Your task to perform on an android device: Search for lenovo thinkpad on costco.com, select the first entry, and add it to the cart. Image 0: 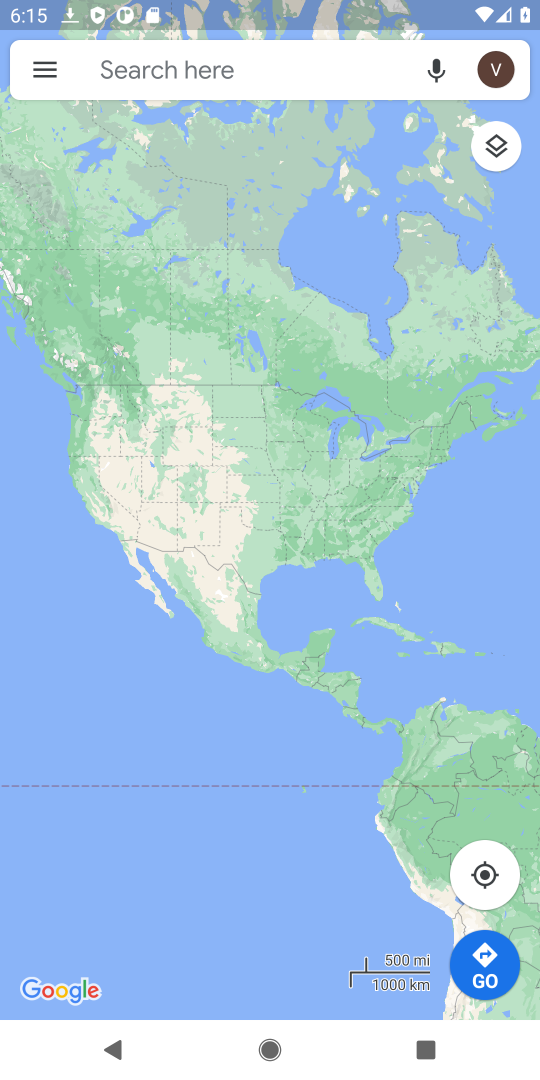
Step 0: press home button
Your task to perform on an android device: Search for lenovo thinkpad on costco.com, select the first entry, and add it to the cart. Image 1: 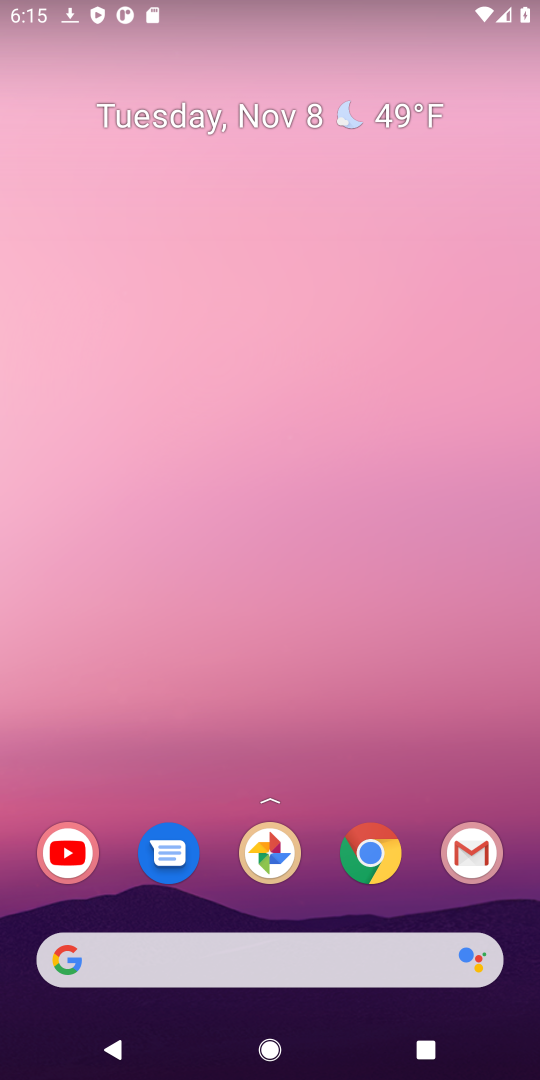
Step 1: click (370, 855)
Your task to perform on an android device: Search for lenovo thinkpad on costco.com, select the first entry, and add it to the cart. Image 2: 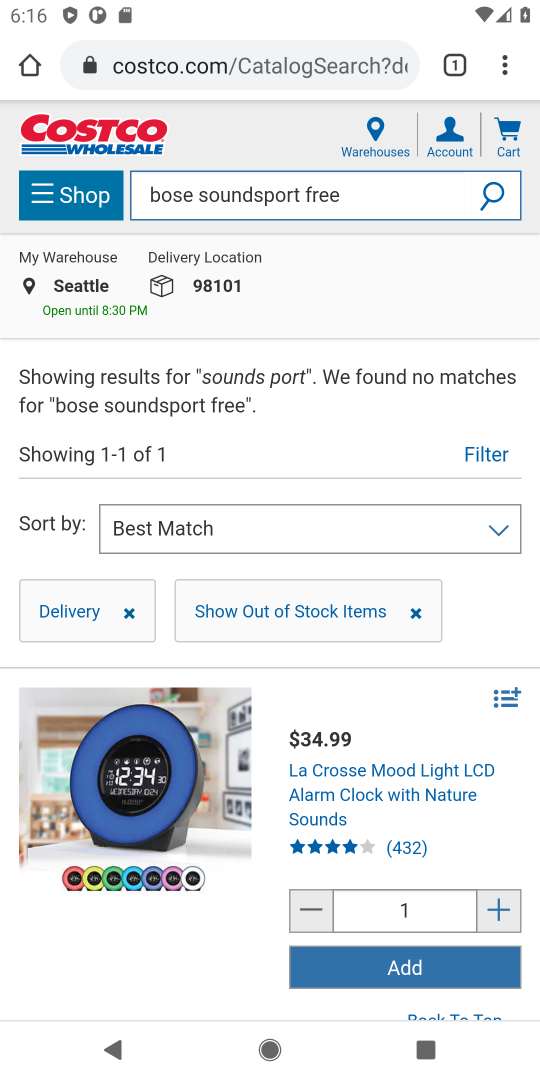
Step 2: press home button
Your task to perform on an android device: Search for lenovo thinkpad on costco.com, select the first entry, and add it to the cart. Image 3: 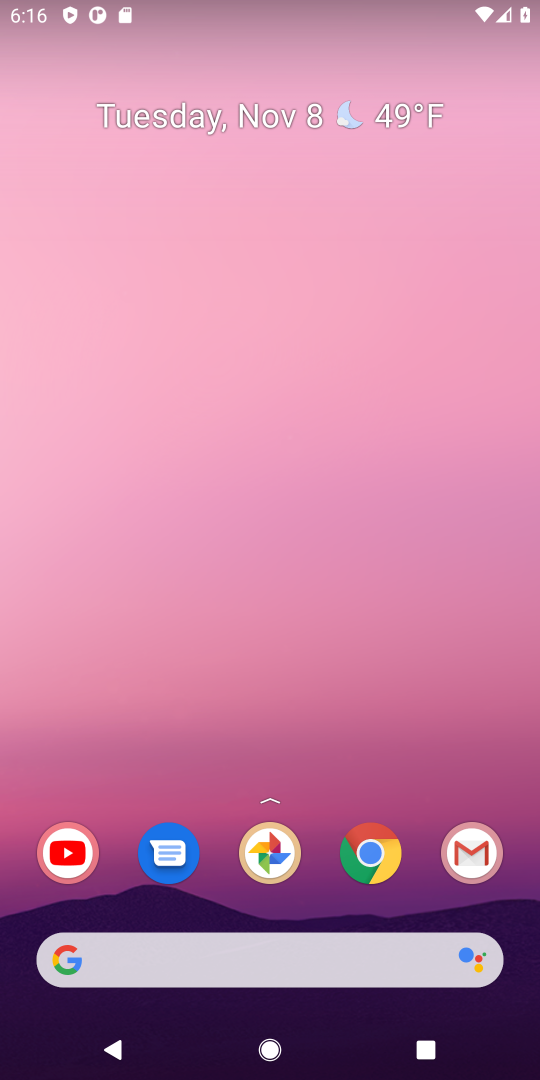
Step 3: click (370, 854)
Your task to perform on an android device: Search for lenovo thinkpad on costco.com, select the first entry, and add it to the cart. Image 4: 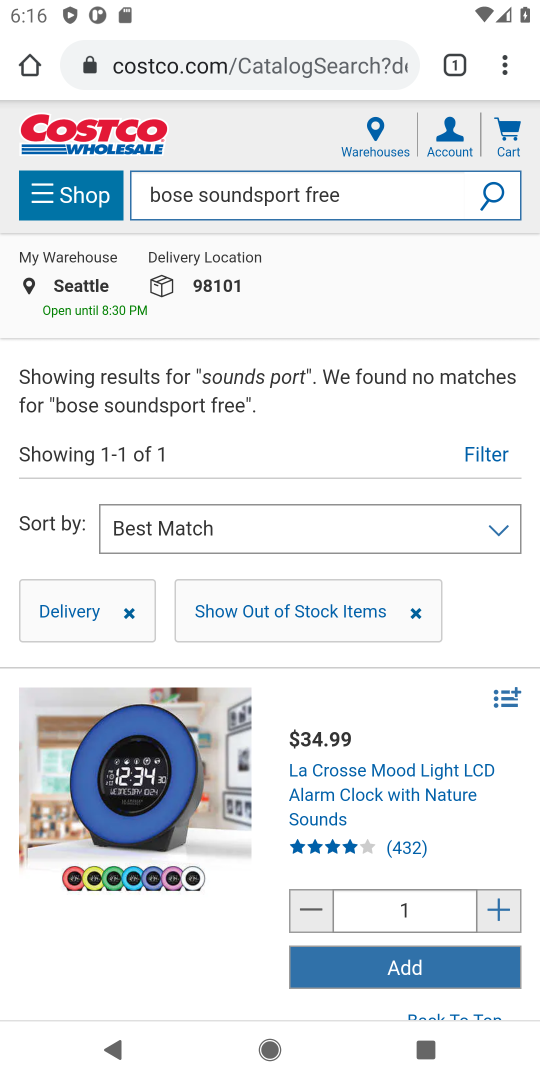
Step 4: click (387, 202)
Your task to perform on an android device: Search for lenovo thinkpad on costco.com, select the first entry, and add it to the cart. Image 5: 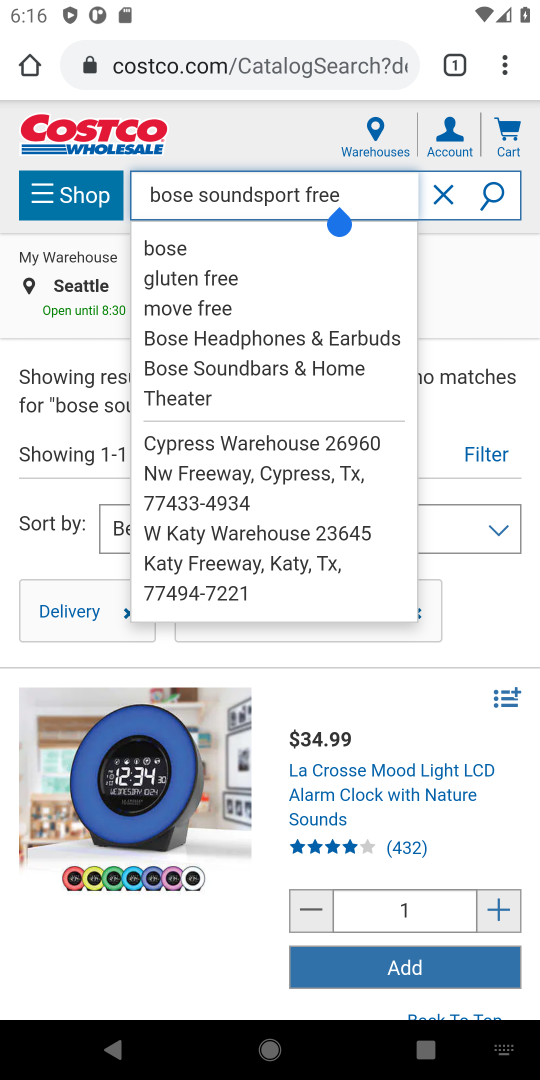
Step 5: click (443, 191)
Your task to perform on an android device: Search for lenovo thinkpad on costco.com, select the first entry, and add it to the cart. Image 6: 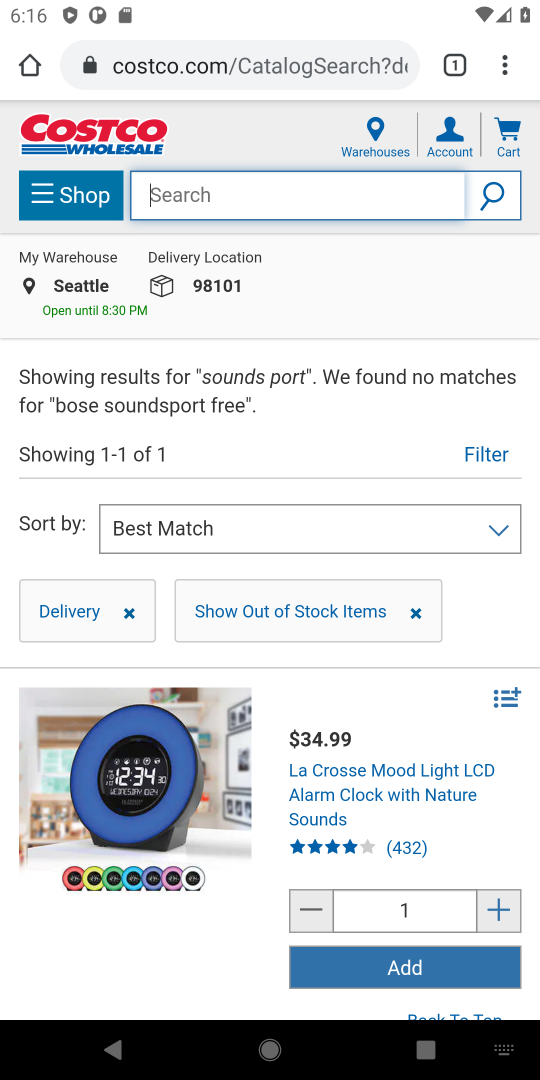
Step 6: type "lenovo thinkpad"
Your task to perform on an android device: Search for lenovo thinkpad on costco.com, select the first entry, and add it to the cart. Image 7: 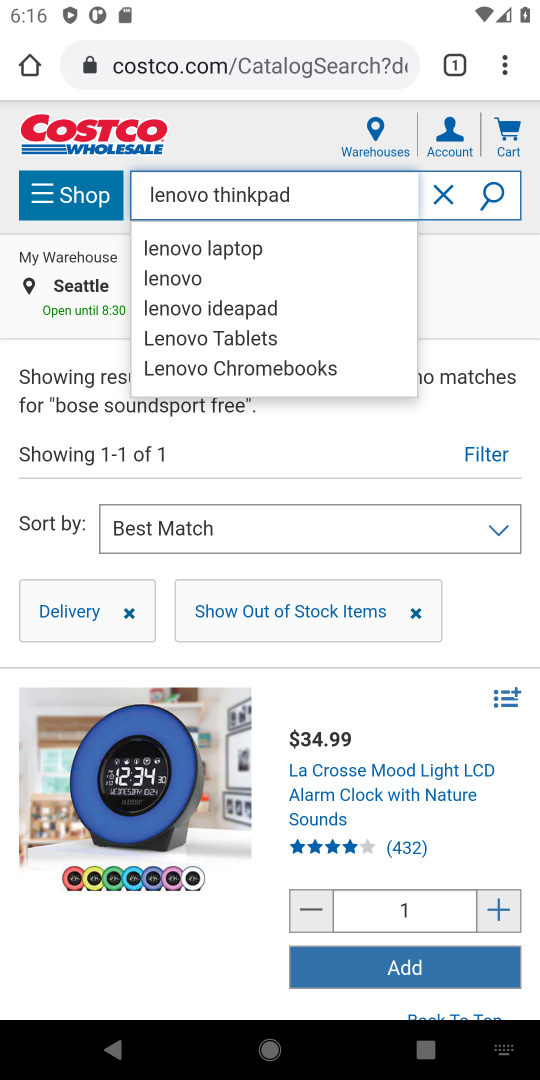
Step 7: click (497, 193)
Your task to perform on an android device: Search for lenovo thinkpad on costco.com, select the first entry, and add it to the cart. Image 8: 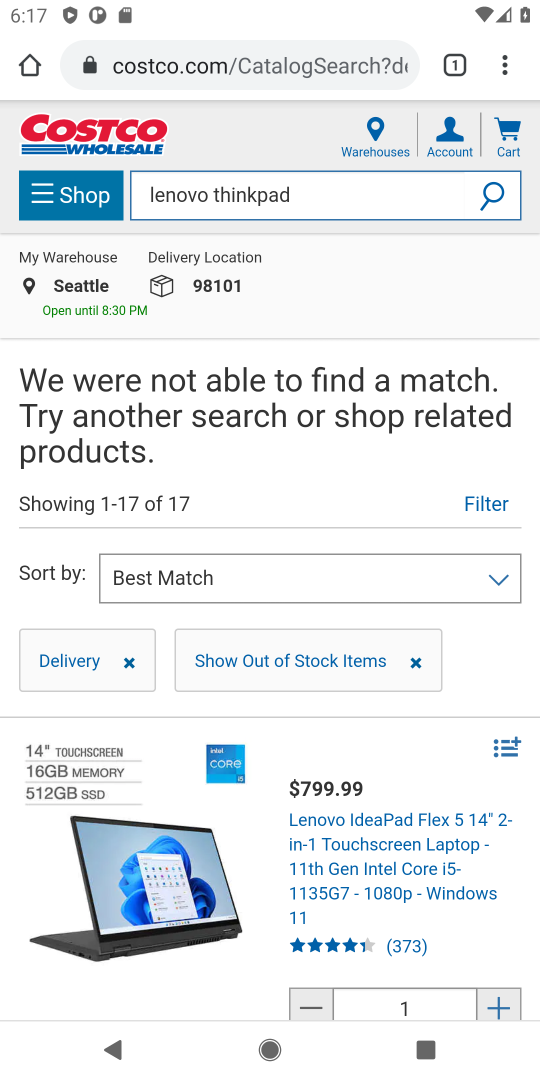
Step 8: task complete